Your task to perform on an android device: turn vacation reply on in the gmail app Image 0: 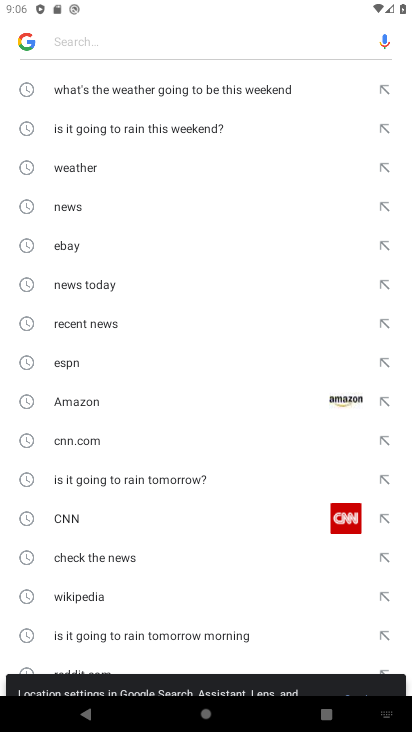
Step 0: press home button
Your task to perform on an android device: turn vacation reply on in the gmail app Image 1: 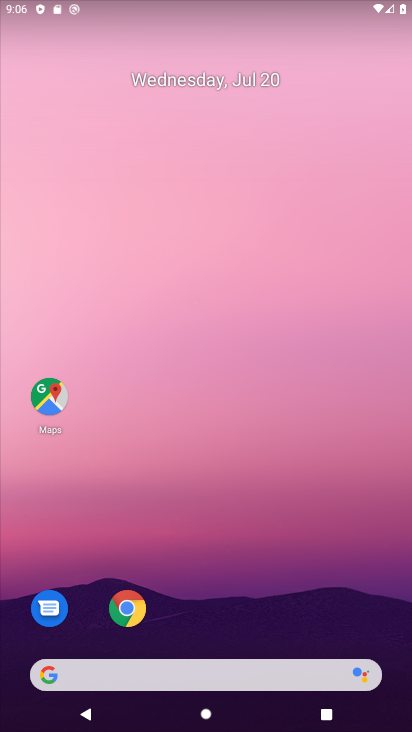
Step 1: drag from (376, 623) to (318, 131)
Your task to perform on an android device: turn vacation reply on in the gmail app Image 2: 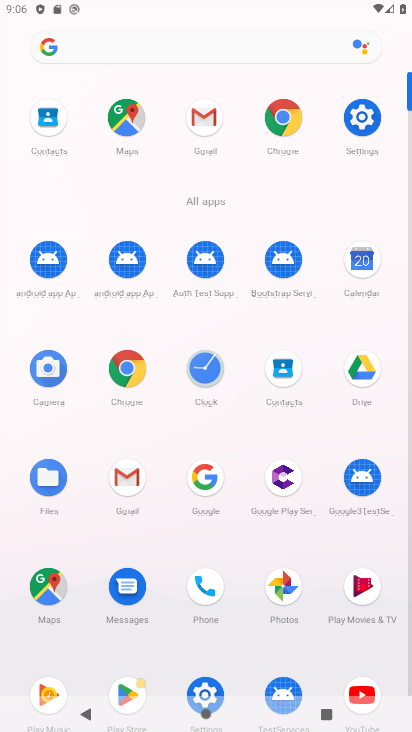
Step 2: click (208, 125)
Your task to perform on an android device: turn vacation reply on in the gmail app Image 3: 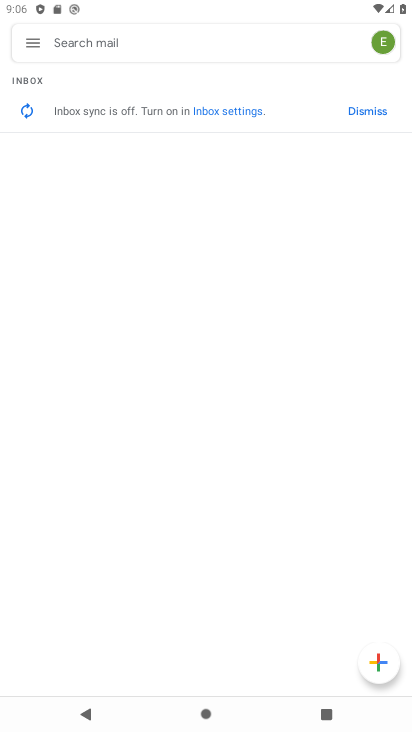
Step 3: click (39, 42)
Your task to perform on an android device: turn vacation reply on in the gmail app Image 4: 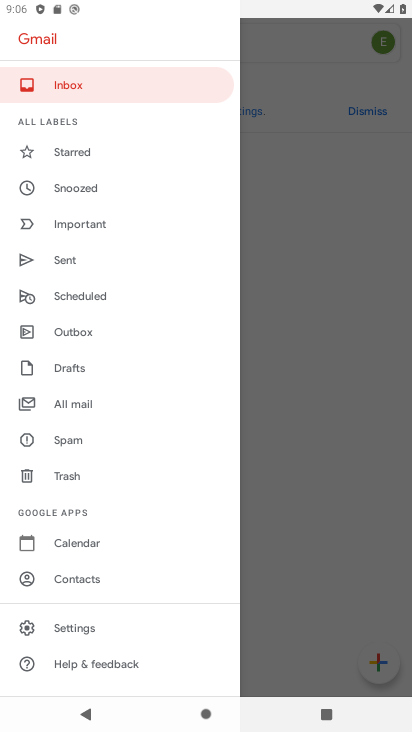
Step 4: click (80, 633)
Your task to perform on an android device: turn vacation reply on in the gmail app Image 5: 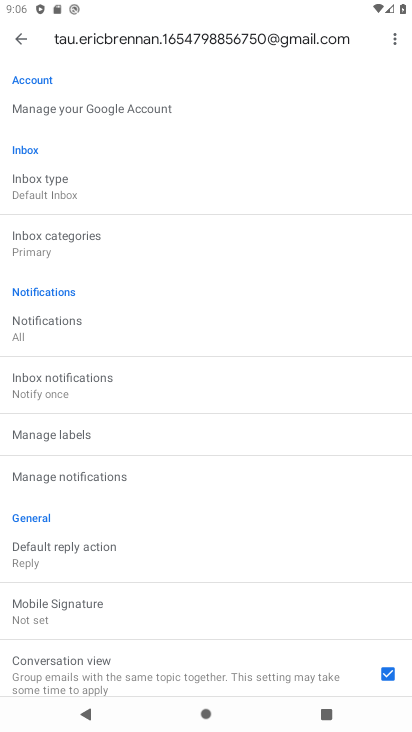
Step 5: drag from (126, 620) to (101, 427)
Your task to perform on an android device: turn vacation reply on in the gmail app Image 6: 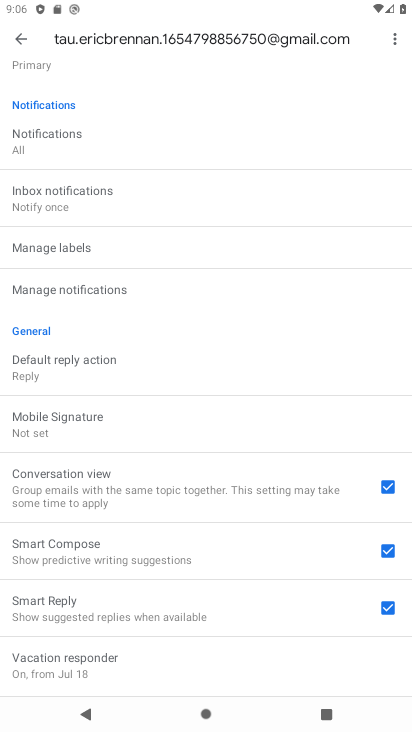
Step 6: click (97, 662)
Your task to perform on an android device: turn vacation reply on in the gmail app Image 7: 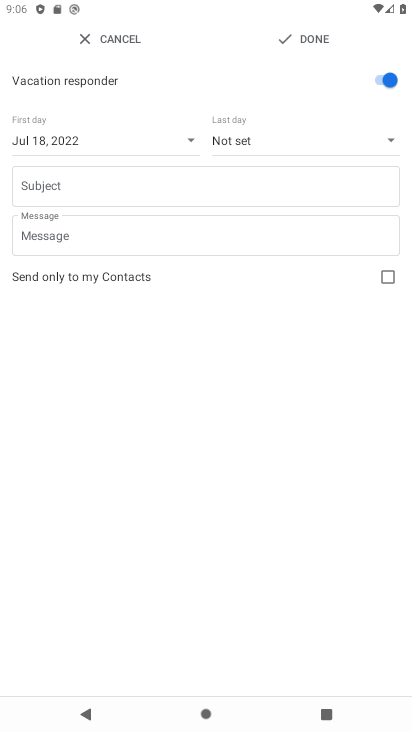
Step 7: click (329, 185)
Your task to perform on an android device: turn vacation reply on in the gmail app Image 8: 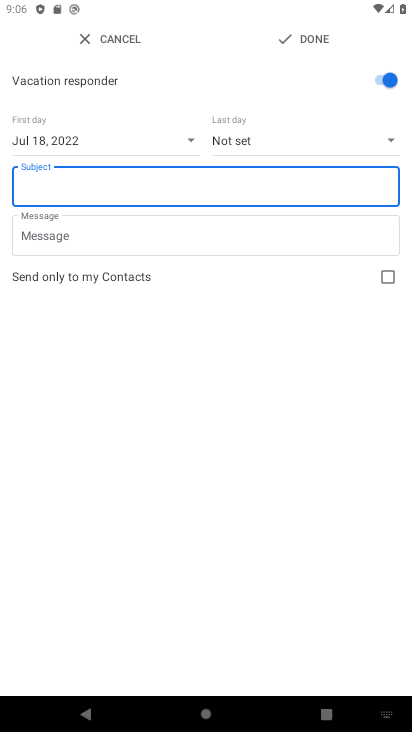
Step 8: type "nknknk"
Your task to perform on an android device: turn vacation reply on in the gmail app Image 9: 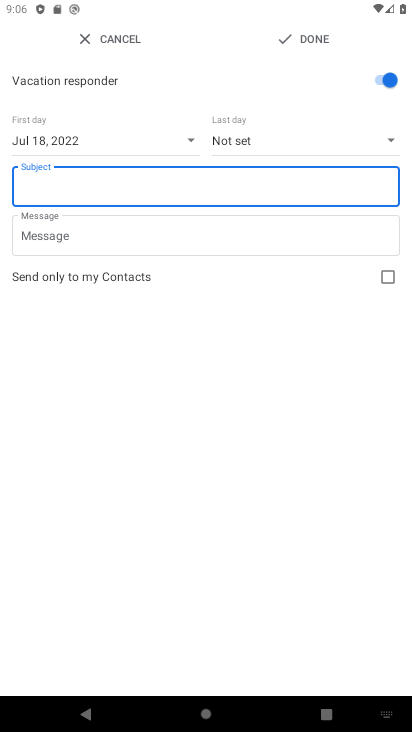
Step 9: click (397, 410)
Your task to perform on an android device: turn vacation reply on in the gmail app Image 10: 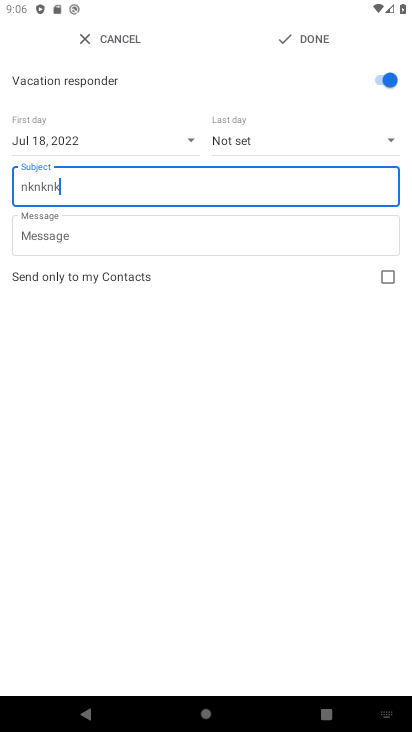
Step 10: click (329, 40)
Your task to perform on an android device: turn vacation reply on in the gmail app Image 11: 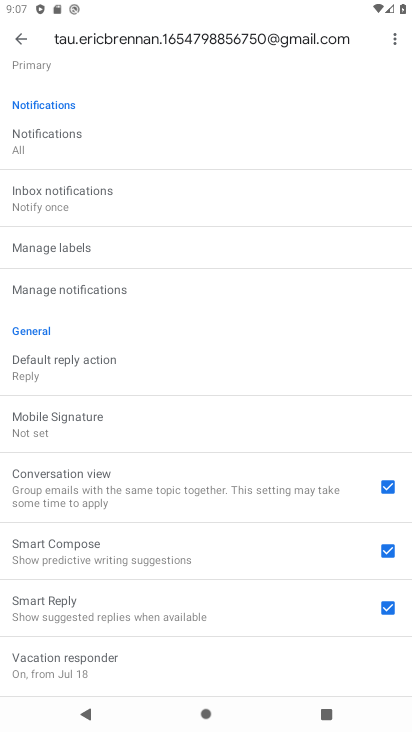
Step 11: task complete